Your task to perform on an android device: check storage Image 0: 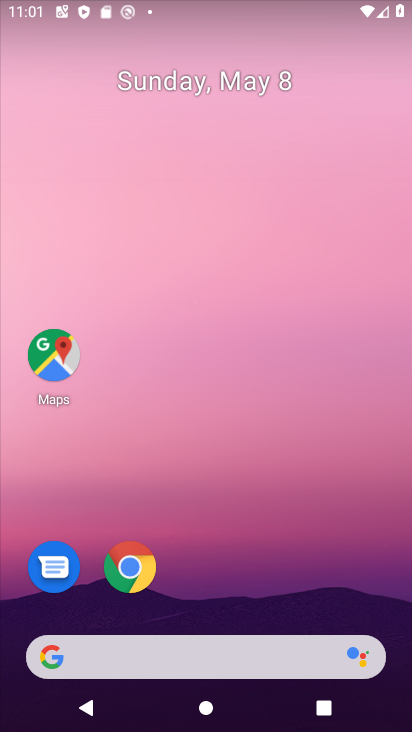
Step 0: drag from (224, 601) to (216, 1)
Your task to perform on an android device: check storage Image 1: 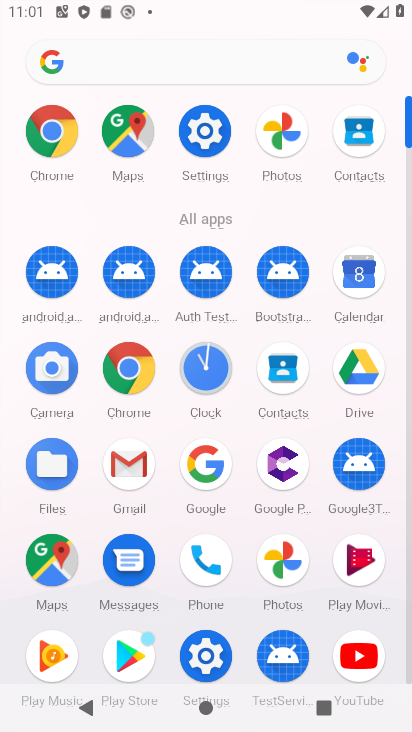
Step 1: click (202, 130)
Your task to perform on an android device: check storage Image 2: 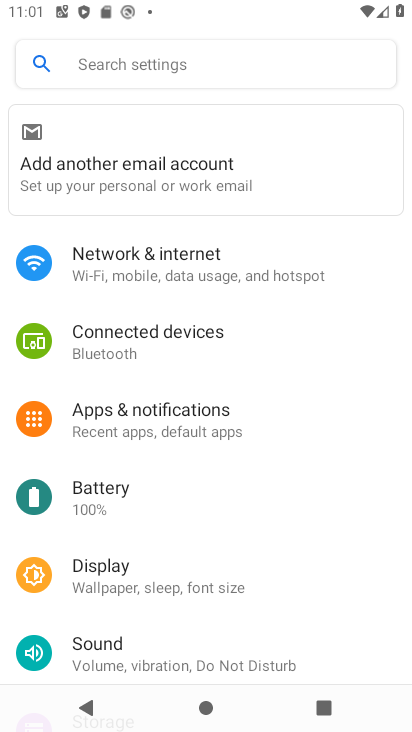
Step 2: drag from (150, 624) to (158, 346)
Your task to perform on an android device: check storage Image 3: 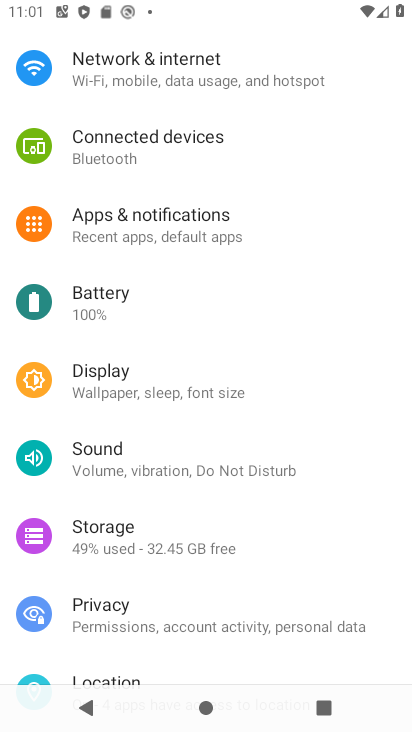
Step 3: click (177, 178)
Your task to perform on an android device: check storage Image 4: 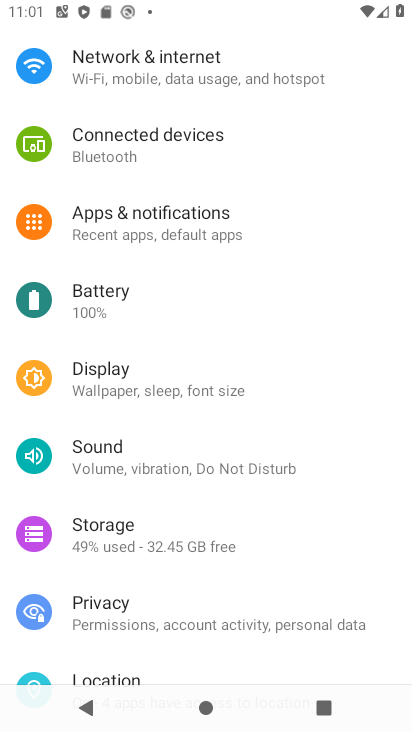
Step 4: click (152, 524)
Your task to perform on an android device: check storage Image 5: 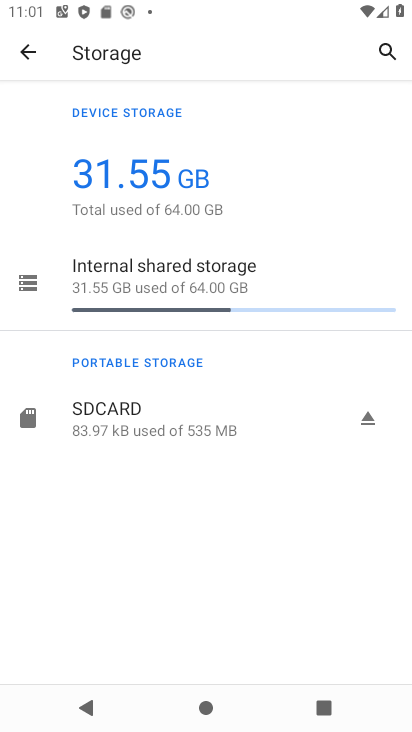
Step 5: task complete